Your task to perform on an android device: Open Google Maps Image 0: 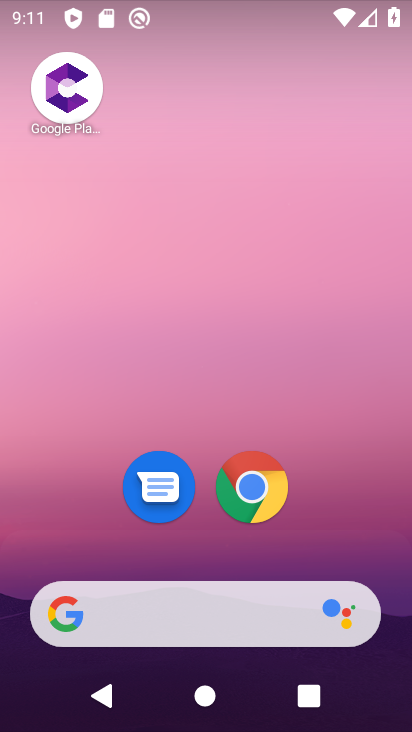
Step 0: drag from (345, 518) to (231, 38)
Your task to perform on an android device: Open Google Maps Image 1: 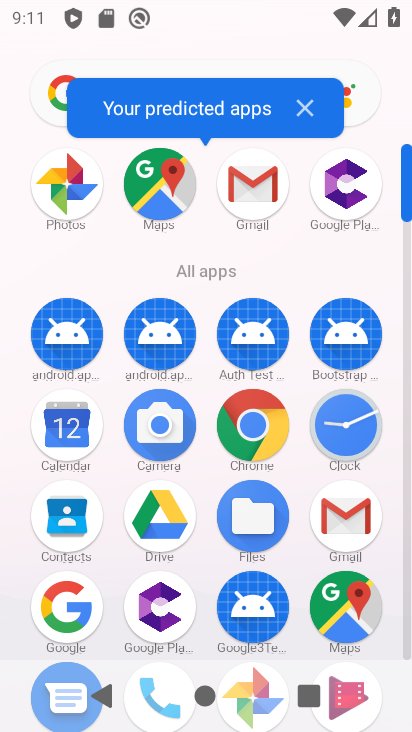
Step 1: click (164, 190)
Your task to perform on an android device: Open Google Maps Image 2: 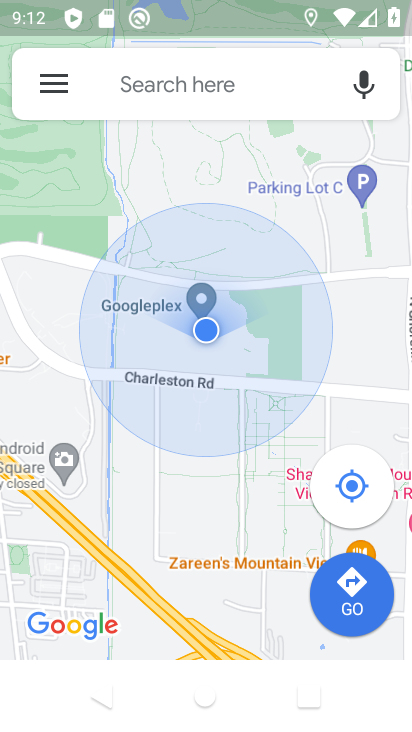
Step 2: task complete